Your task to perform on an android device: Open Youtube and go to "Your channel" Image 0: 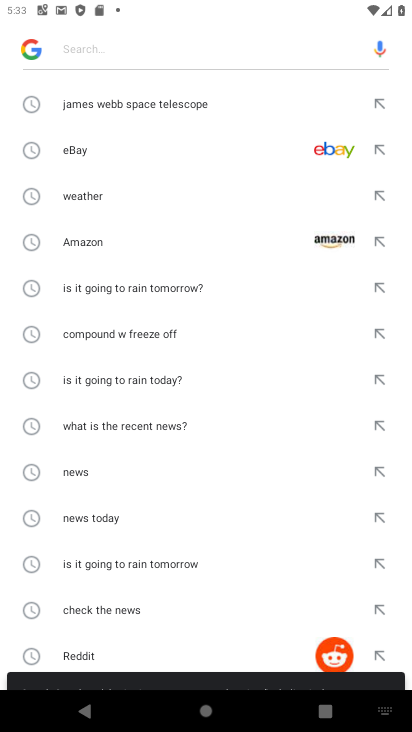
Step 0: press home button
Your task to perform on an android device: Open Youtube and go to "Your channel" Image 1: 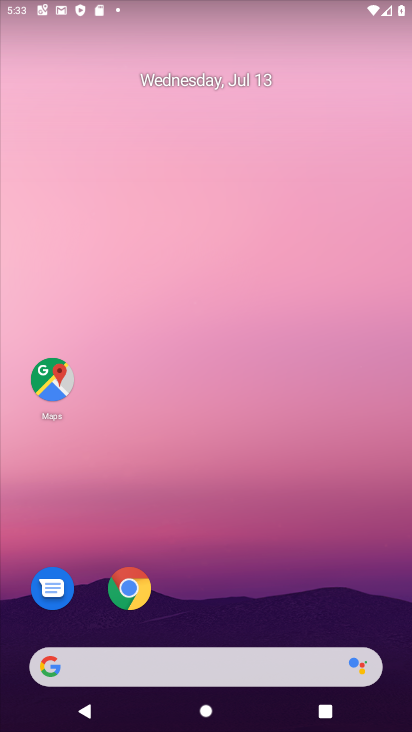
Step 1: drag from (189, 578) to (188, 285)
Your task to perform on an android device: Open Youtube and go to "Your channel" Image 2: 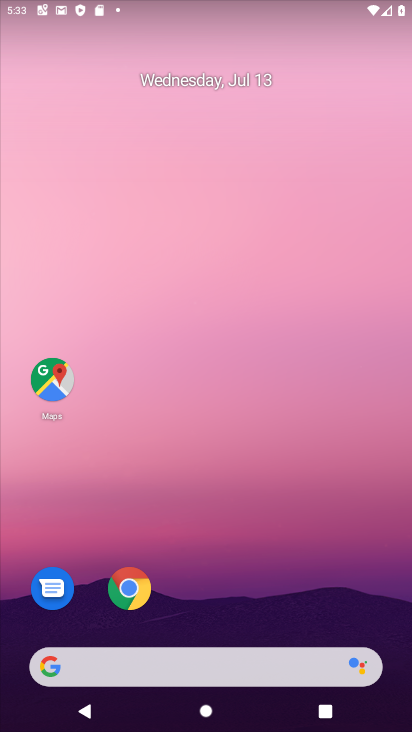
Step 2: drag from (176, 528) to (169, 142)
Your task to perform on an android device: Open Youtube and go to "Your channel" Image 3: 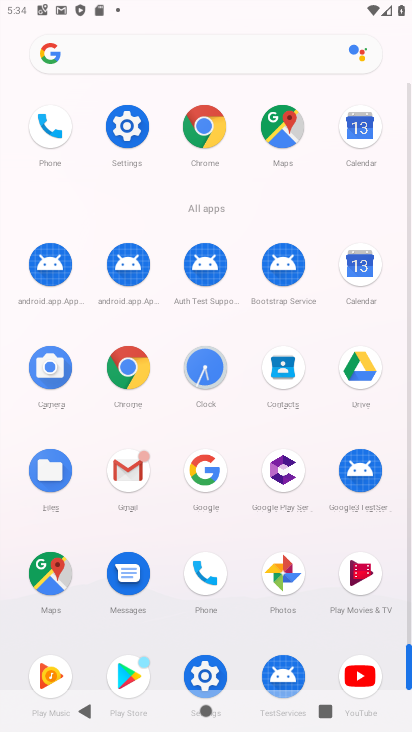
Step 3: click (353, 678)
Your task to perform on an android device: Open Youtube and go to "Your channel" Image 4: 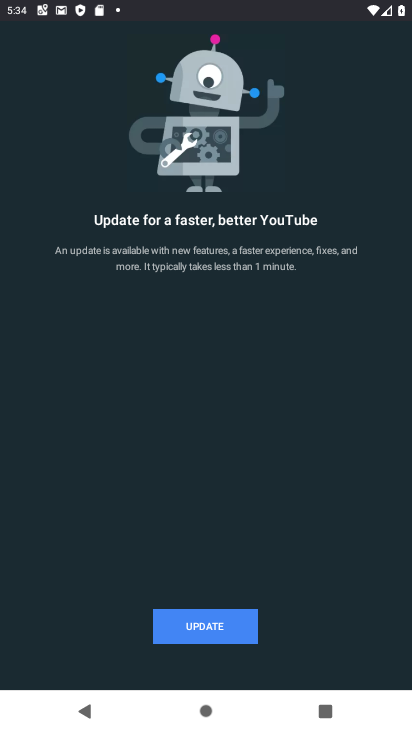
Step 4: click (212, 626)
Your task to perform on an android device: Open Youtube and go to "Your channel" Image 5: 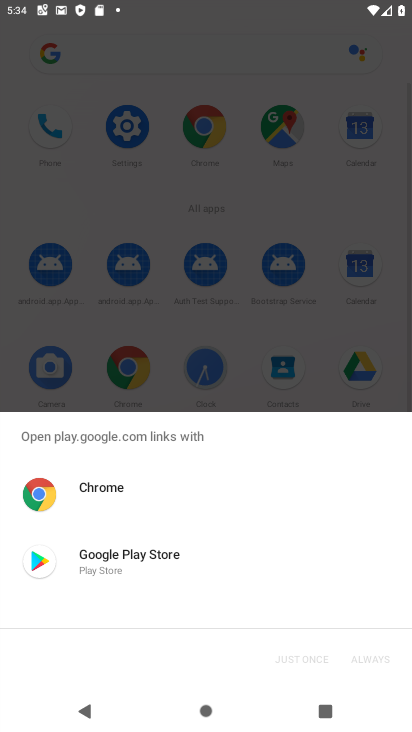
Step 5: click (172, 566)
Your task to perform on an android device: Open Youtube and go to "Your channel" Image 6: 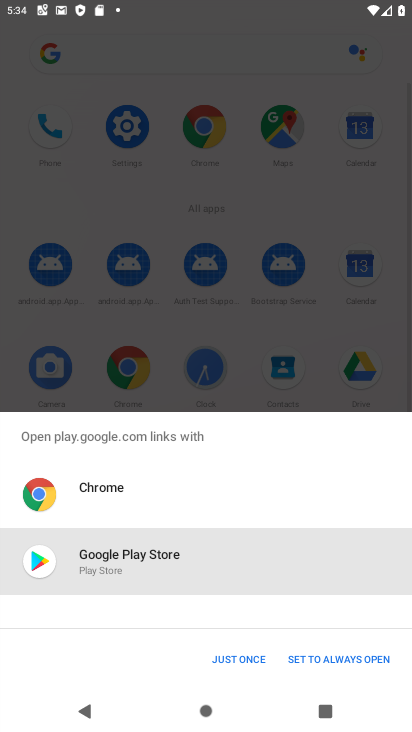
Step 6: click (332, 659)
Your task to perform on an android device: Open Youtube and go to "Your channel" Image 7: 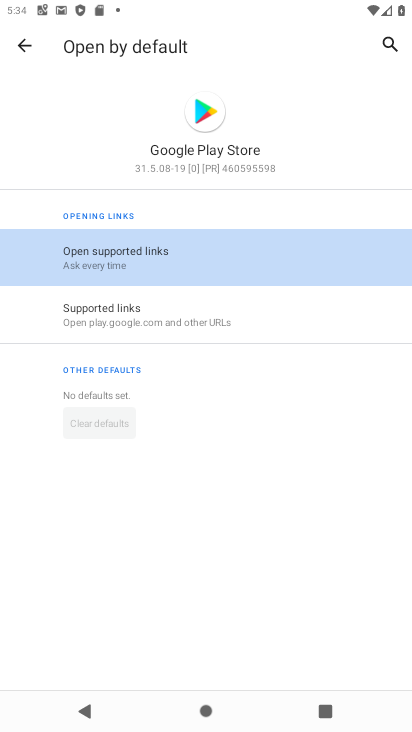
Step 7: click (193, 260)
Your task to perform on an android device: Open Youtube and go to "Your channel" Image 8: 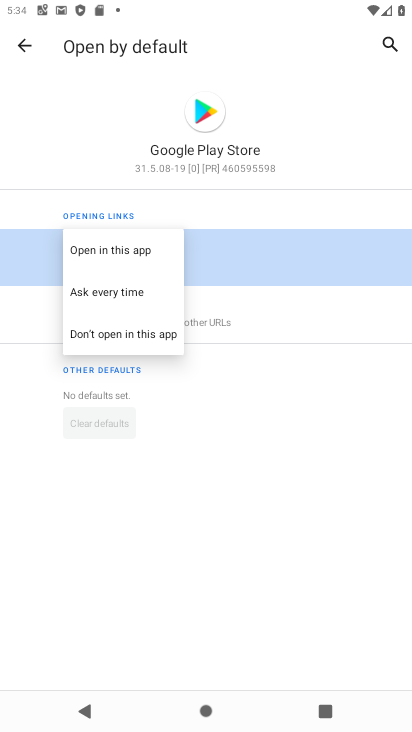
Step 8: click (137, 250)
Your task to perform on an android device: Open Youtube and go to "Your channel" Image 9: 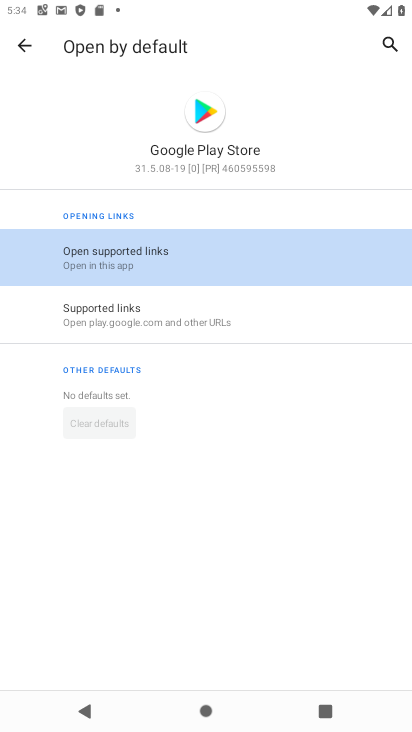
Step 9: click (32, 44)
Your task to perform on an android device: Open Youtube and go to "Your channel" Image 10: 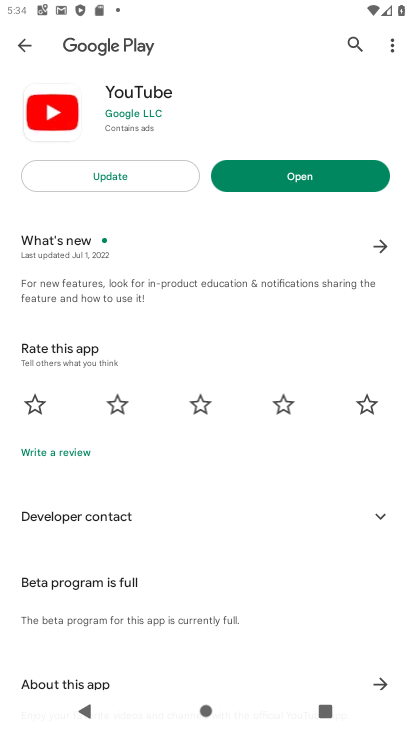
Step 10: click (116, 172)
Your task to perform on an android device: Open Youtube and go to "Your channel" Image 11: 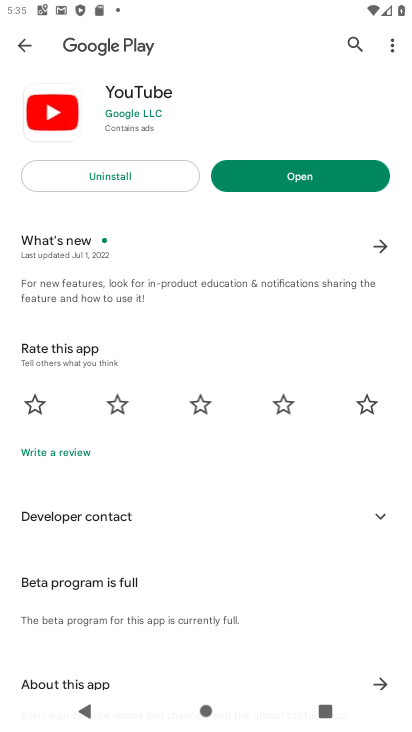
Step 11: click (287, 169)
Your task to perform on an android device: Open Youtube and go to "Your channel" Image 12: 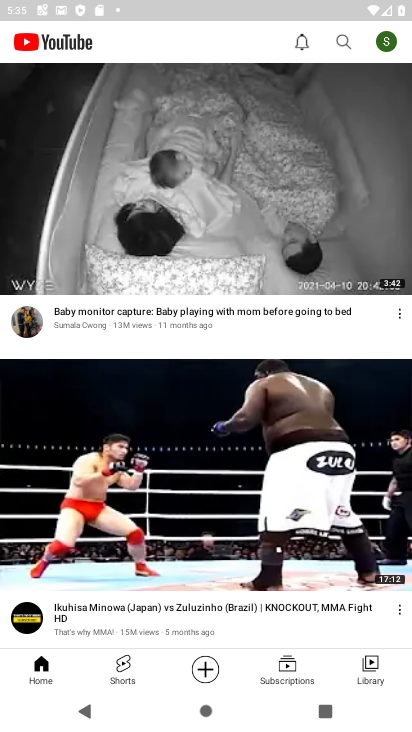
Step 12: click (380, 40)
Your task to perform on an android device: Open Youtube and go to "Your channel" Image 13: 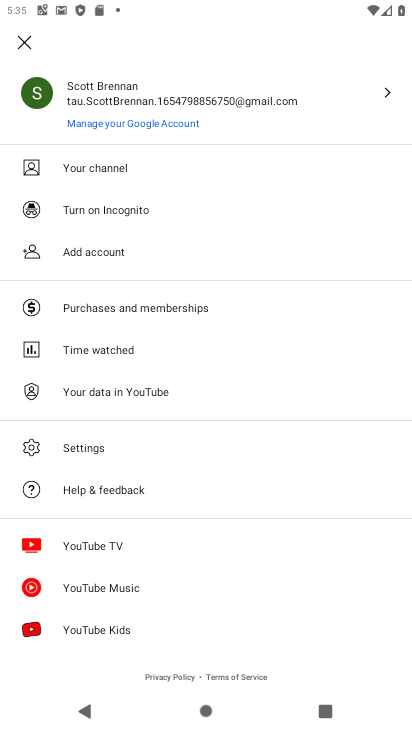
Step 13: click (78, 175)
Your task to perform on an android device: Open Youtube and go to "Your channel" Image 14: 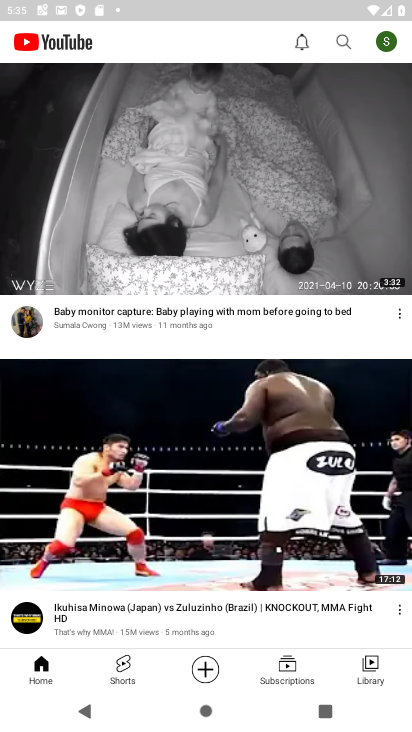
Step 14: click (388, 40)
Your task to perform on an android device: Open Youtube and go to "Your channel" Image 15: 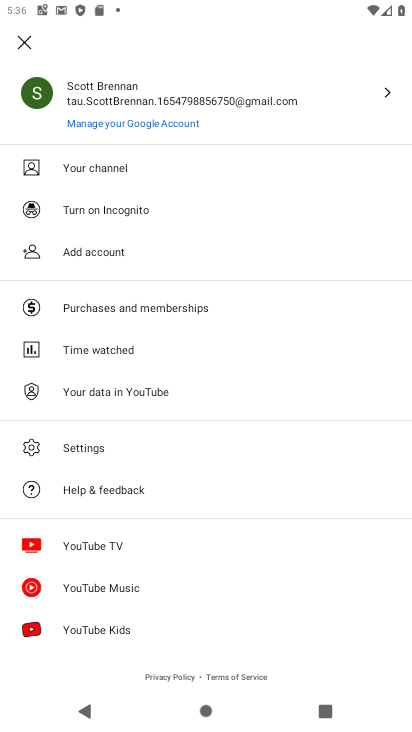
Step 15: click (91, 161)
Your task to perform on an android device: Open Youtube and go to "Your channel" Image 16: 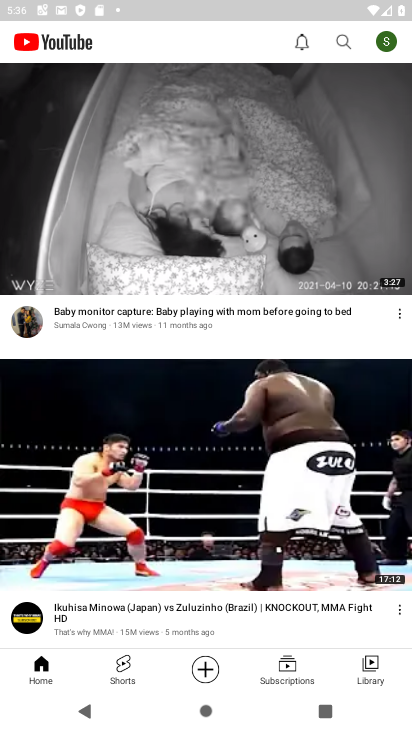
Step 16: click (388, 42)
Your task to perform on an android device: Open Youtube and go to "Your channel" Image 17: 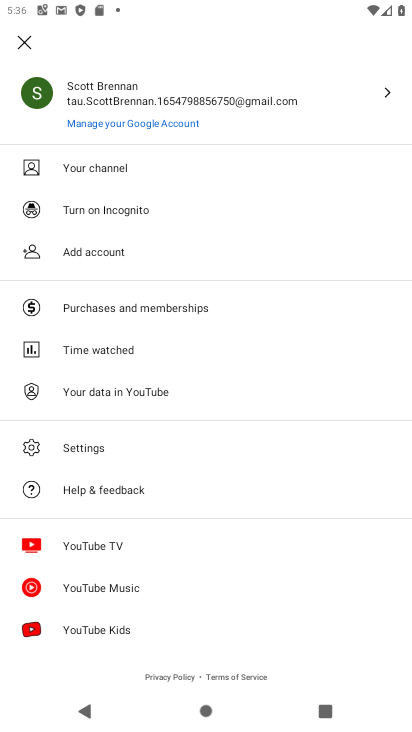
Step 17: click (80, 175)
Your task to perform on an android device: Open Youtube and go to "Your channel" Image 18: 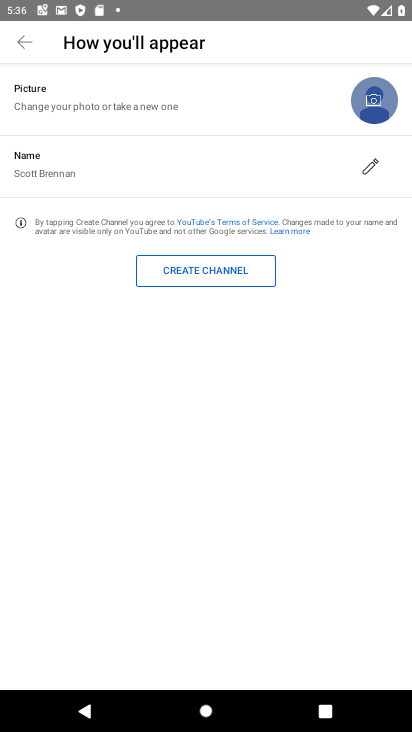
Step 18: task complete